Your task to perform on an android device: delete browsing data in the chrome app Image 0: 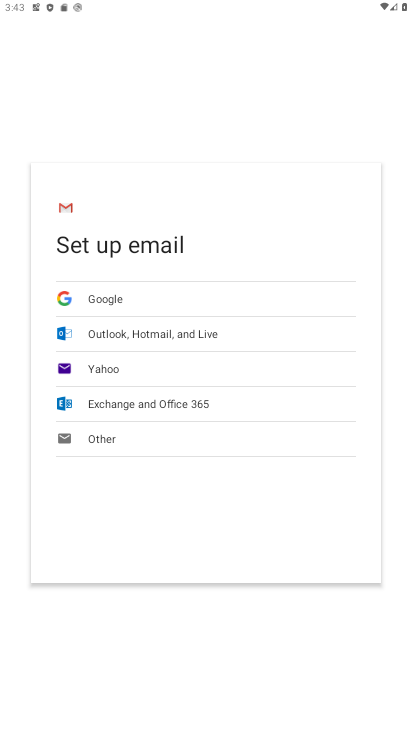
Step 0: press home button
Your task to perform on an android device: delete browsing data in the chrome app Image 1: 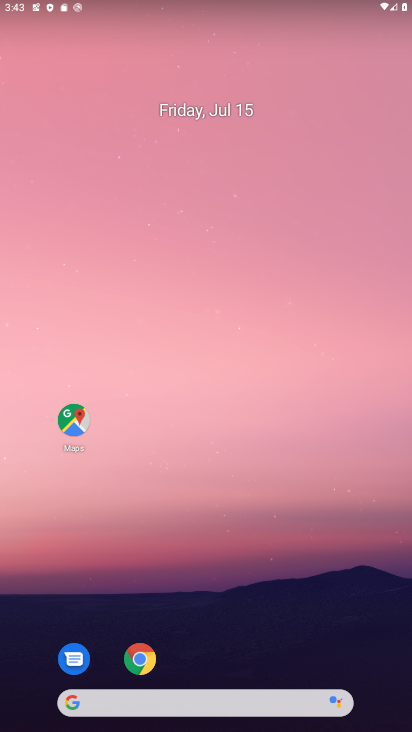
Step 1: click (137, 655)
Your task to perform on an android device: delete browsing data in the chrome app Image 2: 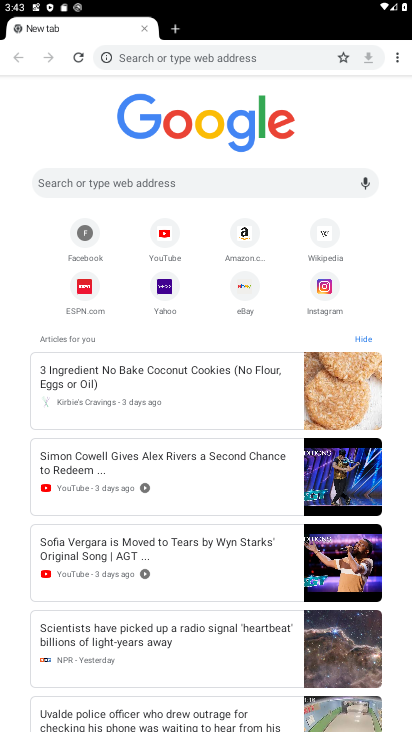
Step 2: click (392, 56)
Your task to perform on an android device: delete browsing data in the chrome app Image 3: 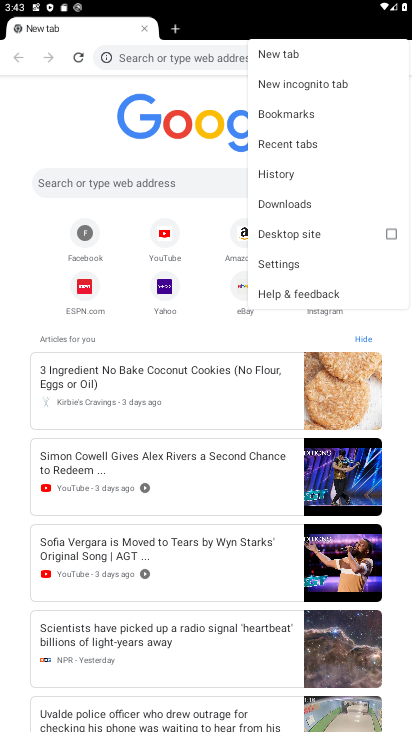
Step 3: click (294, 170)
Your task to perform on an android device: delete browsing data in the chrome app Image 4: 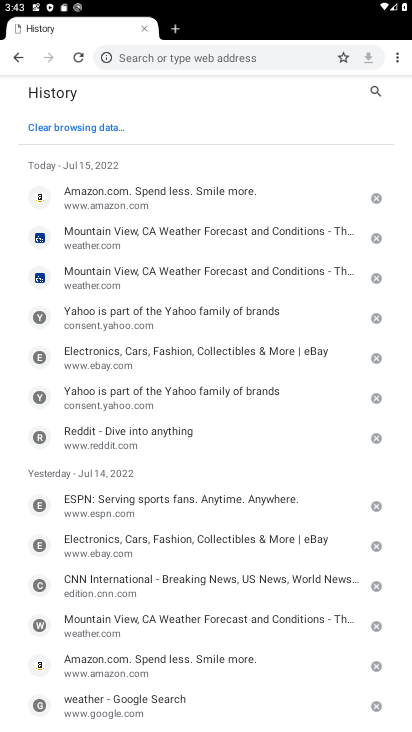
Step 4: click (76, 133)
Your task to perform on an android device: delete browsing data in the chrome app Image 5: 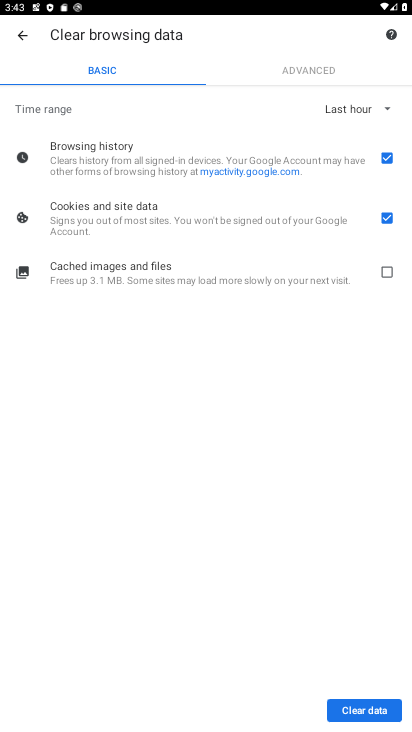
Step 5: click (392, 266)
Your task to perform on an android device: delete browsing data in the chrome app Image 6: 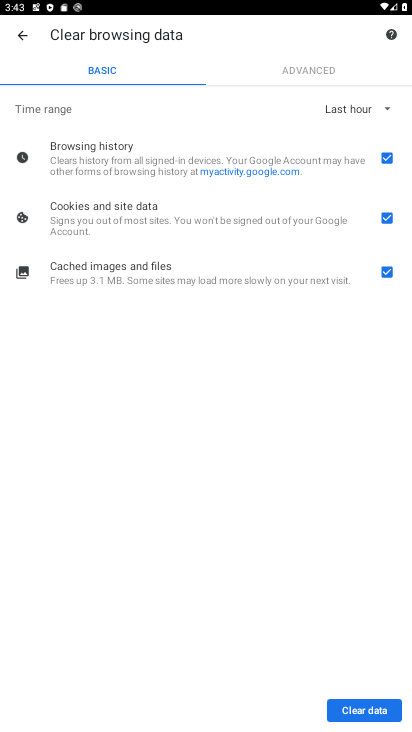
Step 6: click (332, 710)
Your task to perform on an android device: delete browsing data in the chrome app Image 7: 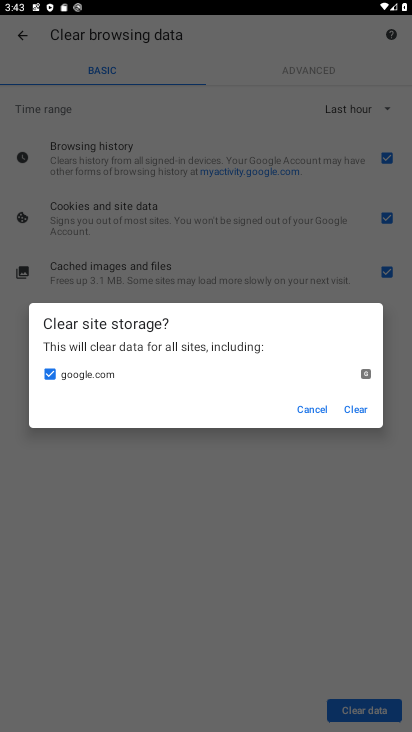
Step 7: click (358, 409)
Your task to perform on an android device: delete browsing data in the chrome app Image 8: 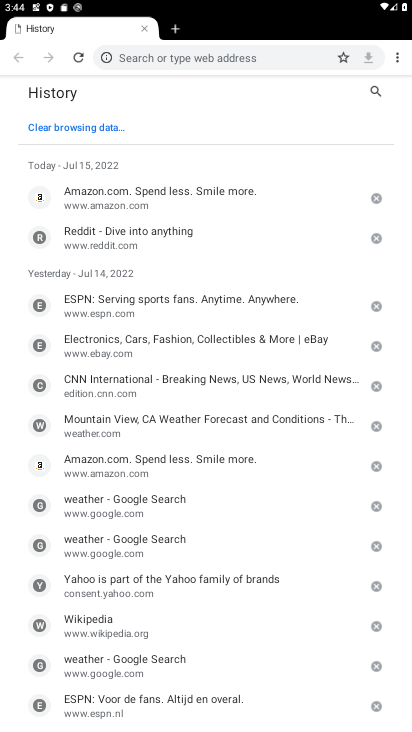
Step 8: task complete